Your task to perform on an android device: turn smart compose on in the gmail app Image 0: 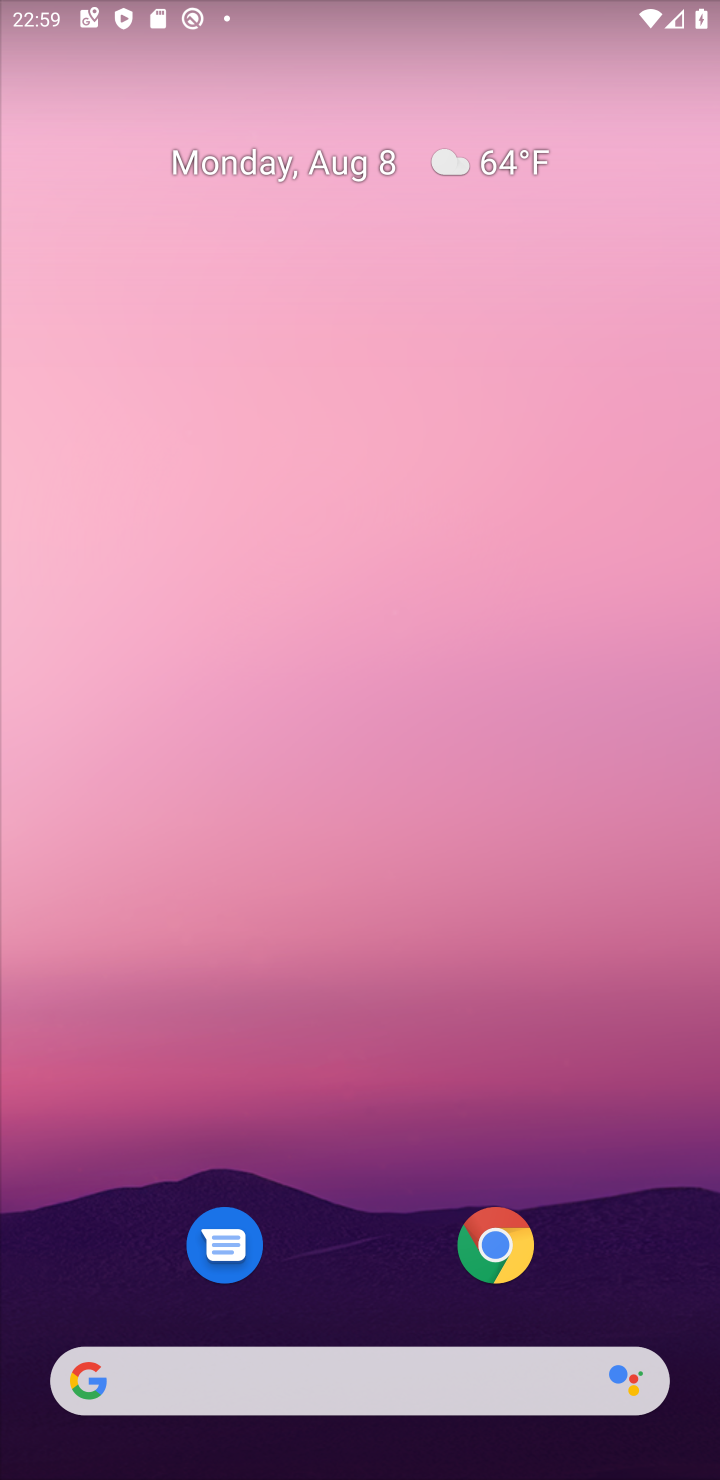
Step 0: drag from (305, 228) to (325, 7)
Your task to perform on an android device: turn smart compose on in the gmail app Image 1: 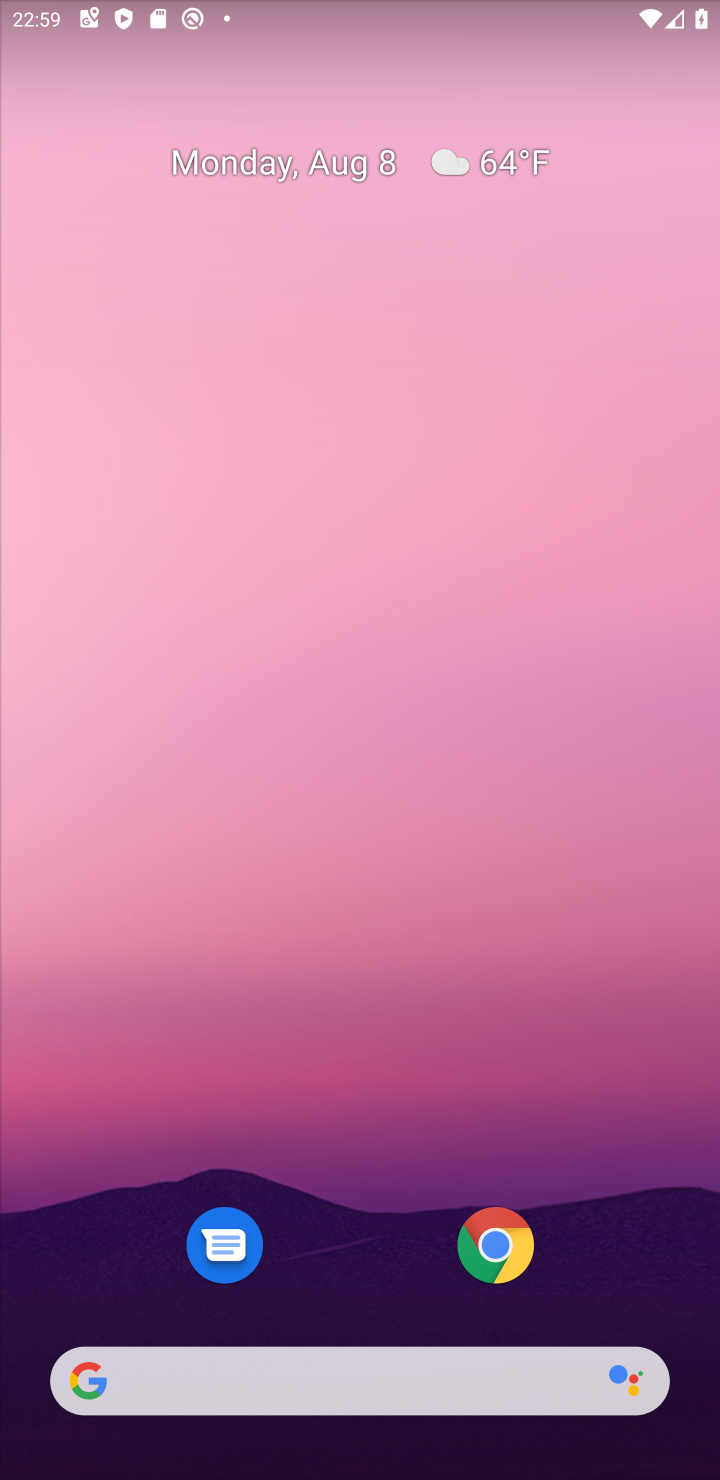
Step 1: drag from (359, 1030) to (267, 218)
Your task to perform on an android device: turn smart compose on in the gmail app Image 2: 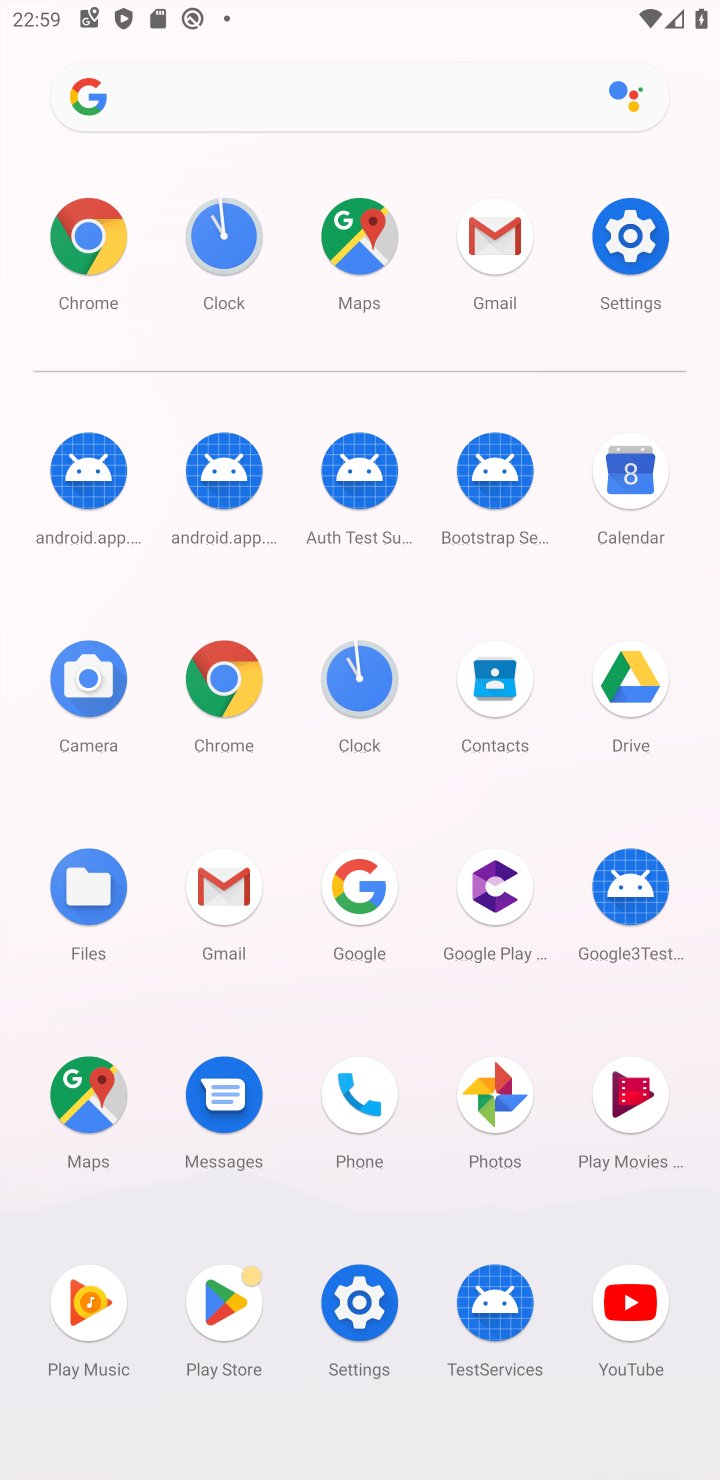
Step 2: click (499, 242)
Your task to perform on an android device: turn smart compose on in the gmail app Image 3: 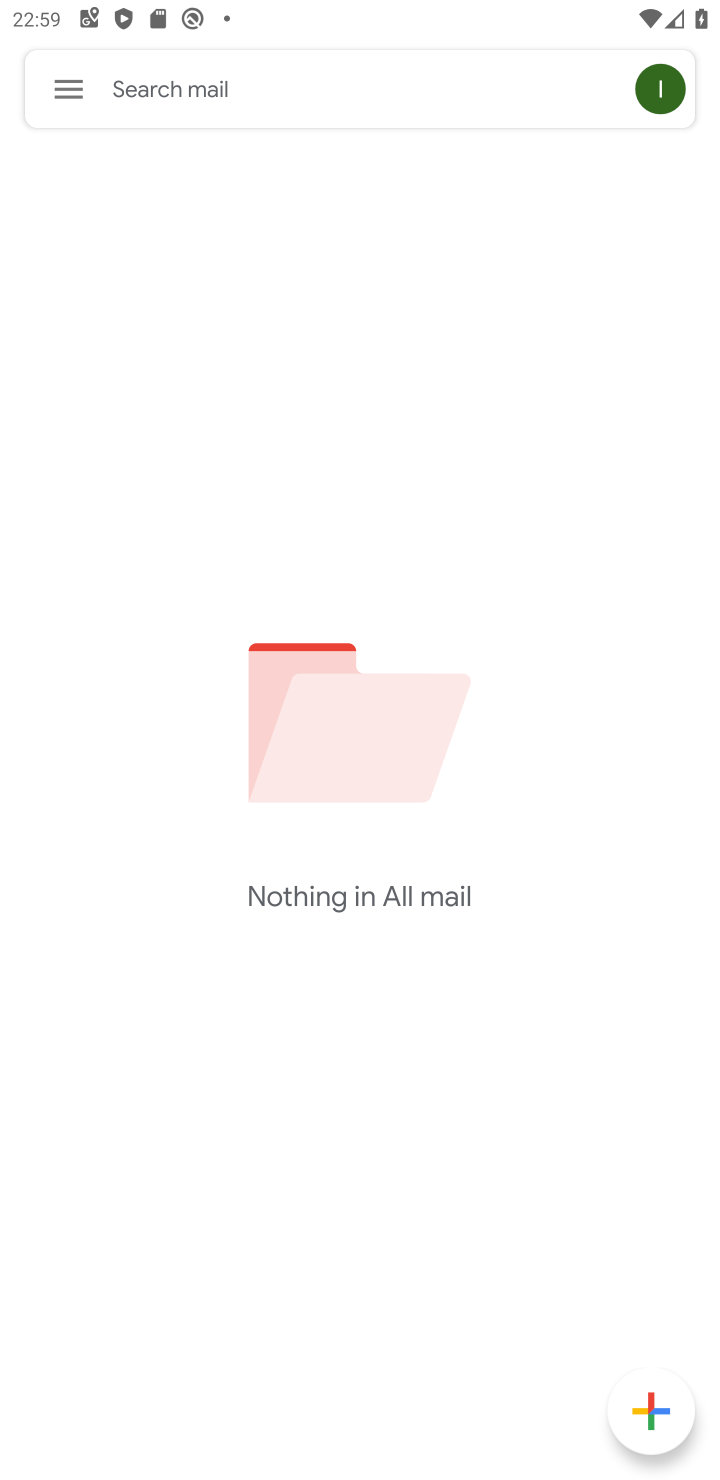
Step 3: click (70, 86)
Your task to perform on an android device: turn smart compose on in the gmail app Image 4: 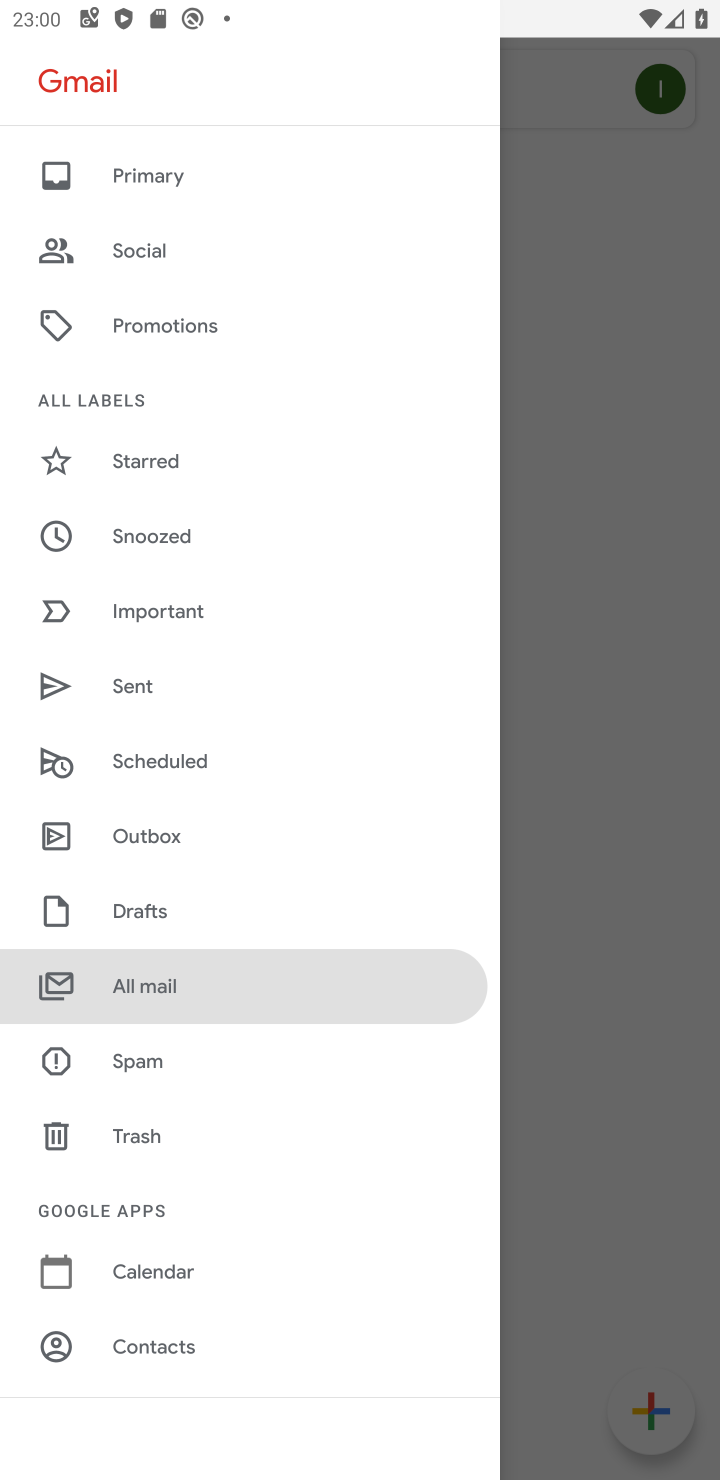
Step 4: drag from (239, 1256) to (233, 601)
Your task to perform on an android device: turn smart compose on in the gmail app Image 5: 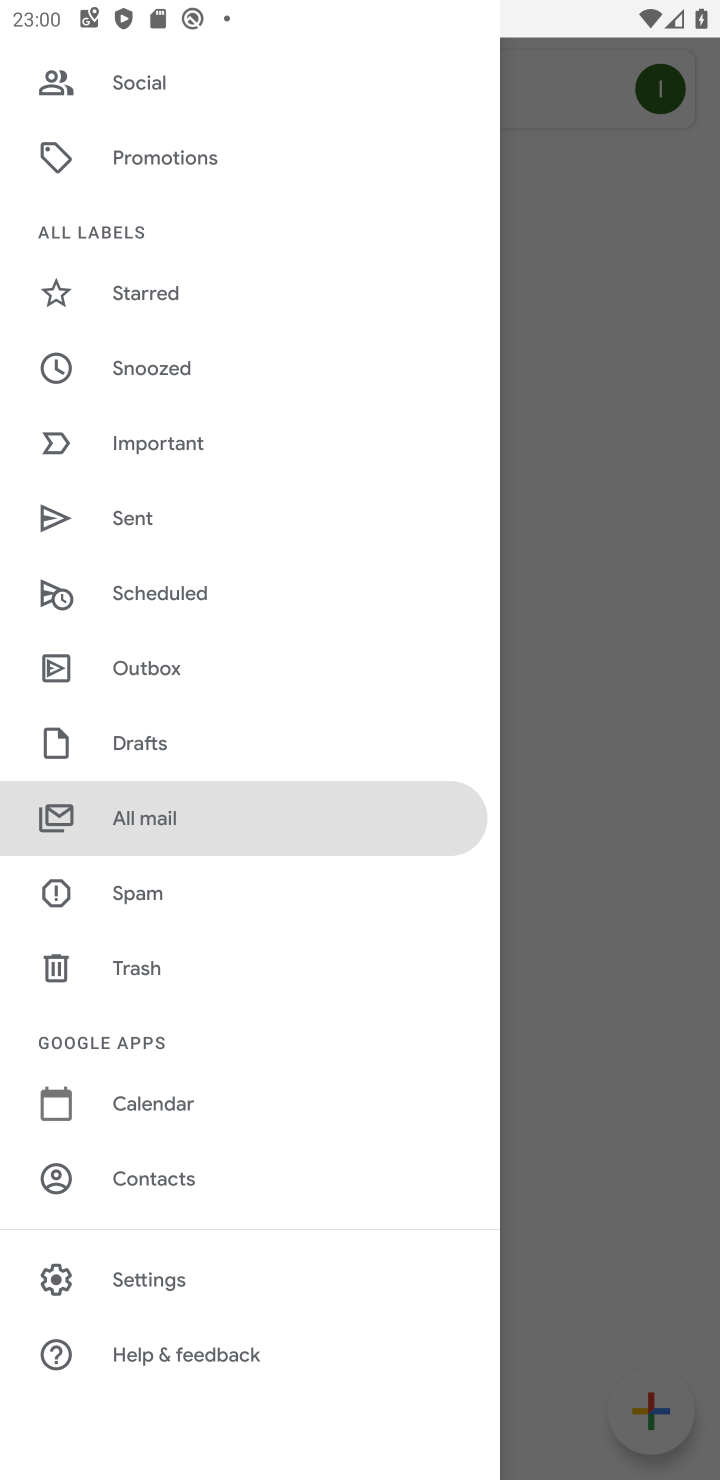
Step 5: click (154, 1270)
Your task to perform on an android device: turn smart compose on in the gmail app Image 6: 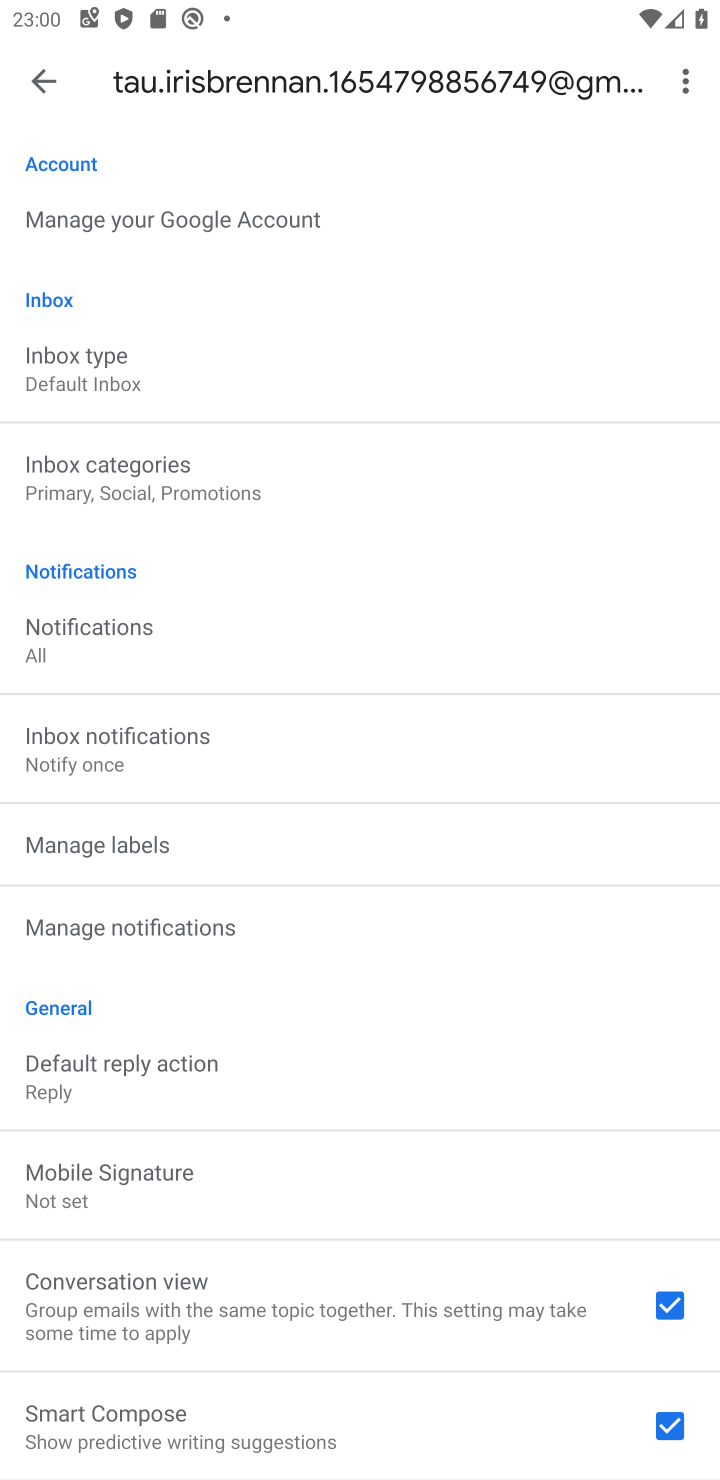
Step 6: task complete